Your task to perform on an android device: Open the web browser Image 0: 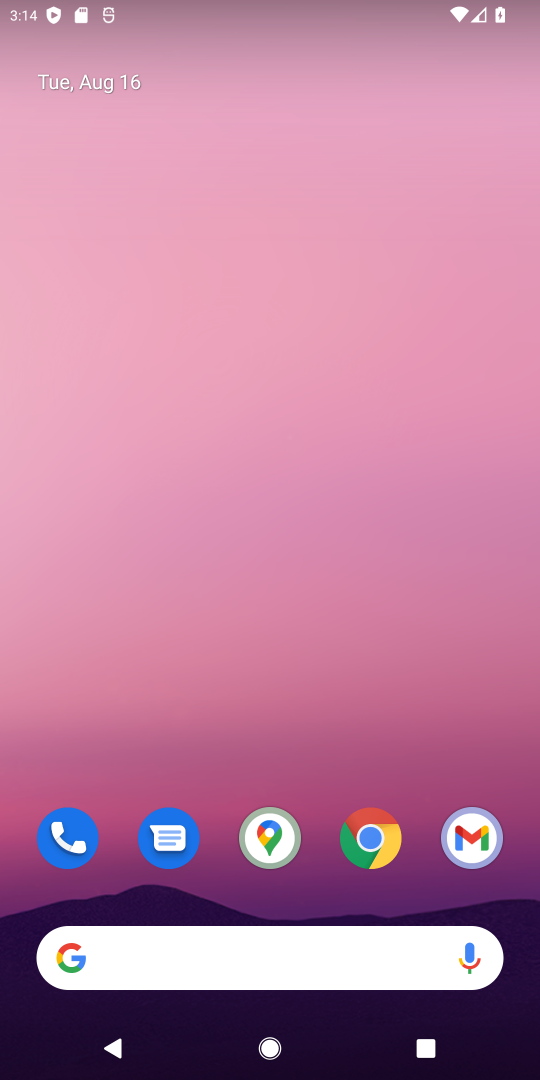
Step 0: click (265, 954)
Your task to perform on an android device: Open the web browser Image 1: 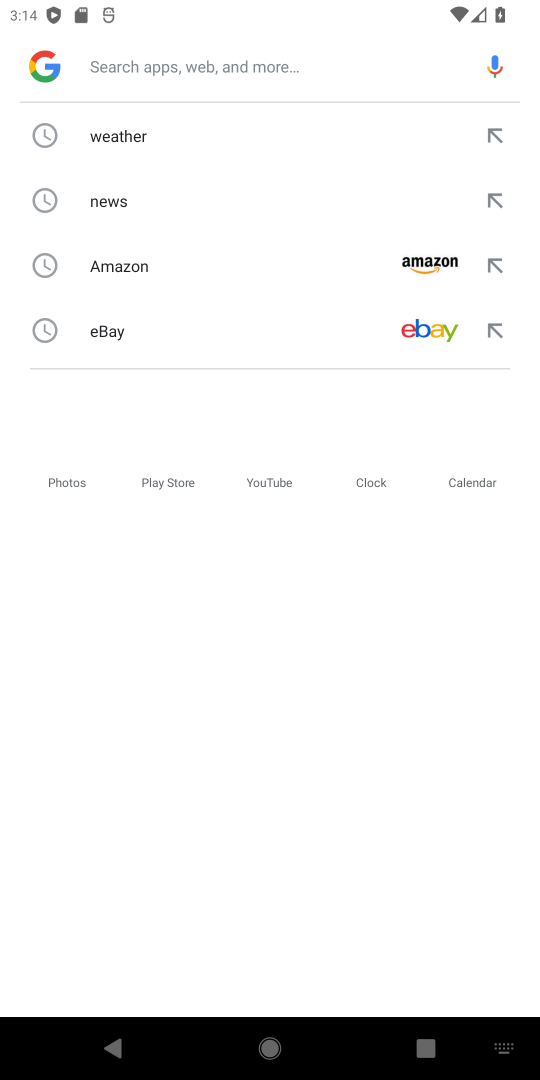
Step 1: task complete